Your task to perform on an android device: change keyboard looks Image 0: 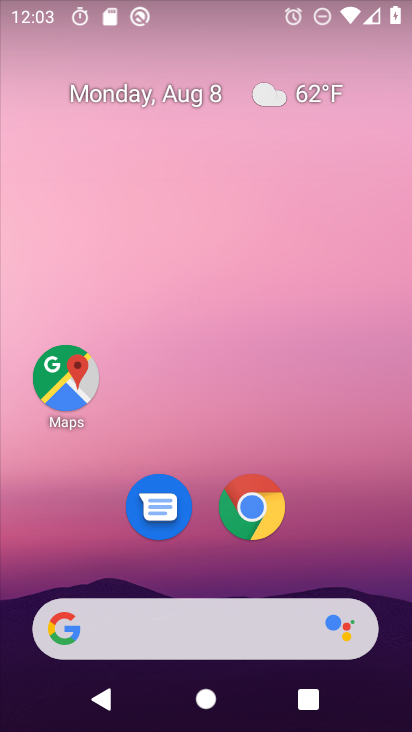
Step 0: drag from (378, 432) to (364, 17)
Your task to perform on an android device: change keyboard looks Image 1: 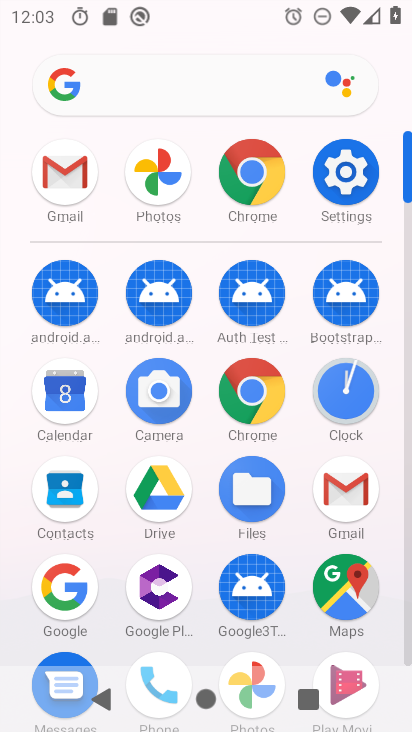
Step 1: click (360, 170)
Your task to perform on an android device: change keyboard looks Image 2: 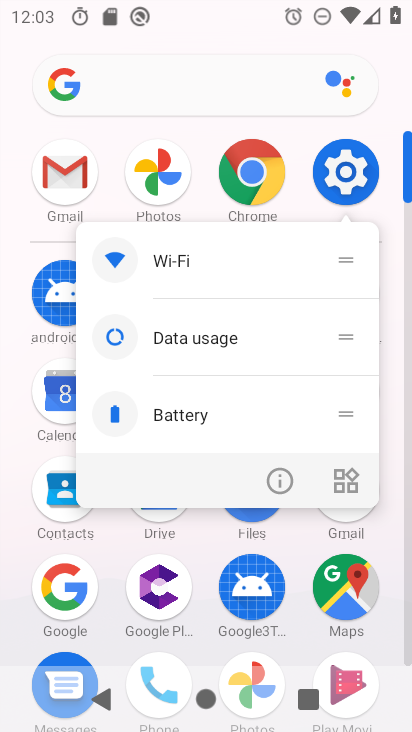
Step 2: click (346, 168)
Your task to perform on an android device: change keyboard looks Image 3: 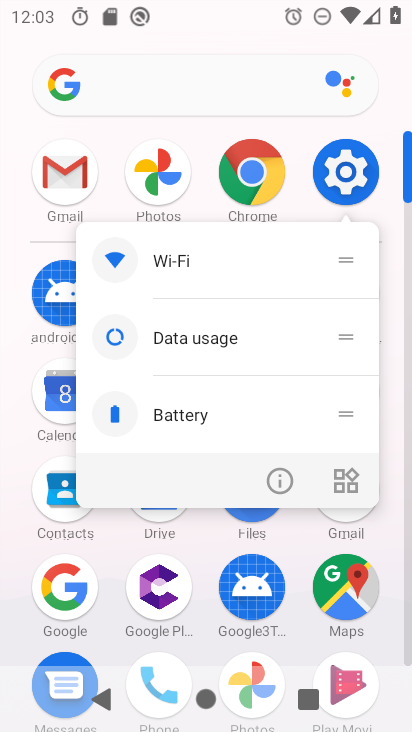
Step 3: click (345, 169)
Your task to perform on an android device: change keyboard looks Image 4: 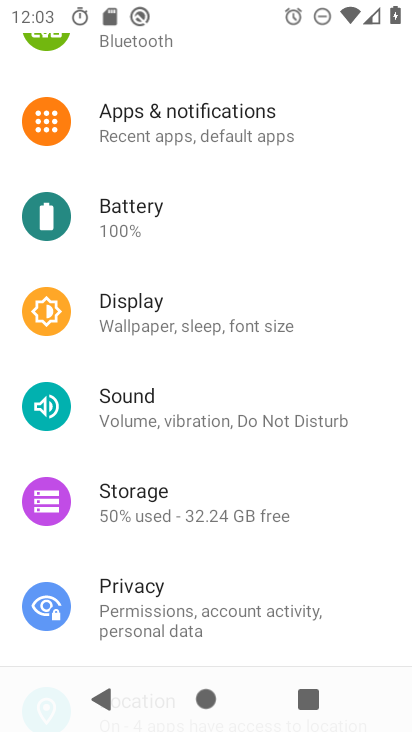
Step 4: drag from (209, 615) to (295, 120)
Your task to perform on an android device: change keyboard looks Image 5: 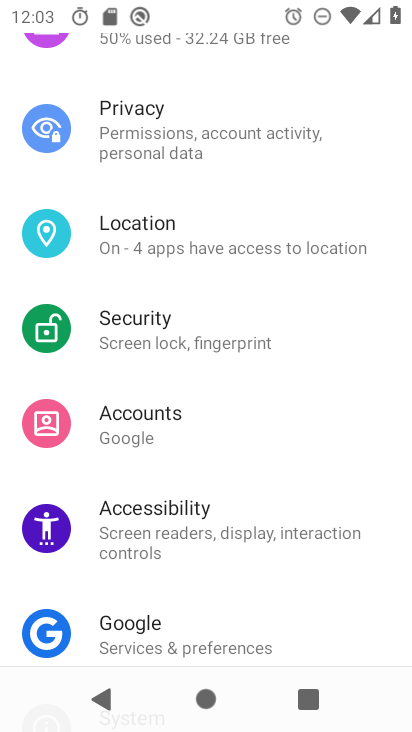
Step 5: drag from (166, 622) to (294, 237)
Your task to perform on an android device: change keyboard looks Image 6: 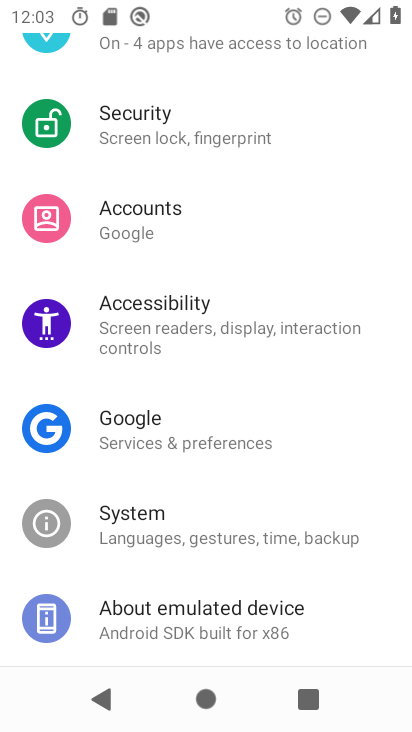
Step 6: click (122, 510)
Your task to perform on an android device: change keyboard looks Image 7: 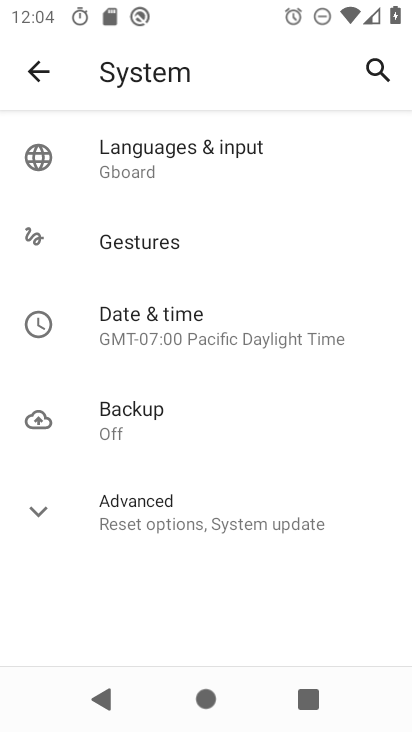
Step 7: click (182, 164)
Your task to perform on an android device: change keyboard looks Image 8: 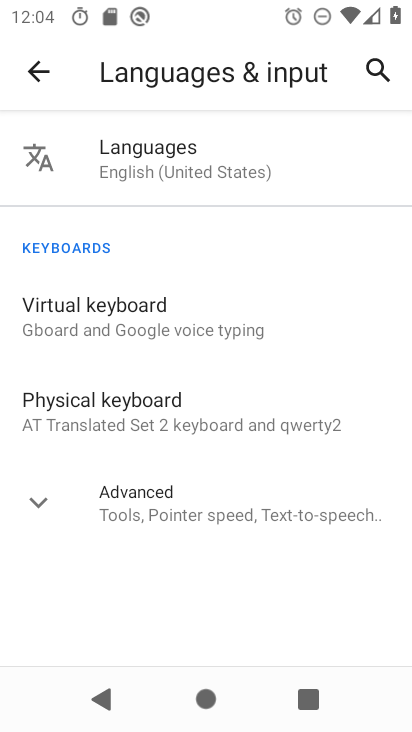
Step 8: click (132, 302)
Your task to perform on an android device: change keyboard looks Image 9: 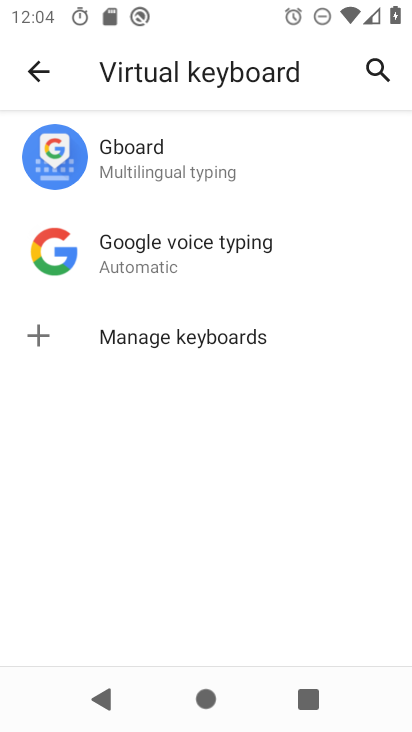
Step 9: click (134, 157)
Your task to perform on an android device: change keyboard looks Image 10: 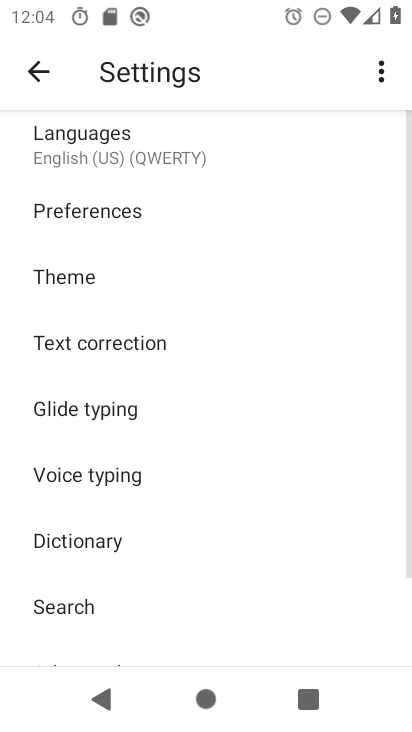
Step 10: click (79, 268)
Your task to perform on an android device: change keyboard looks Image 11: 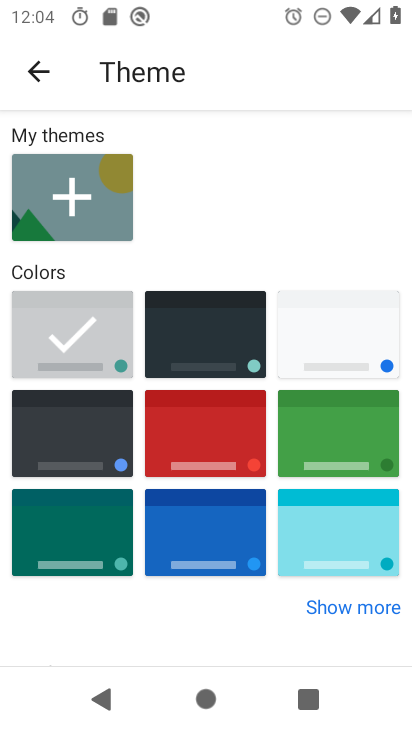
Step 11: click (391, 327)
Your task to perform on an android device: change keyboard looks Image 12: 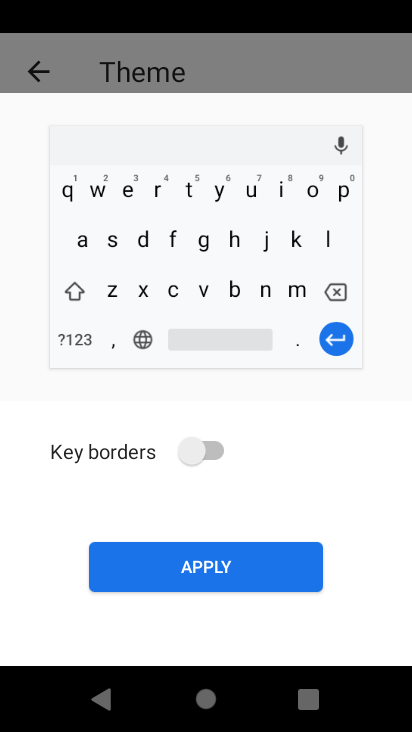
Step 12: click (249, 575)
Your task to perform on an android device: change keyboard looks Image 13: 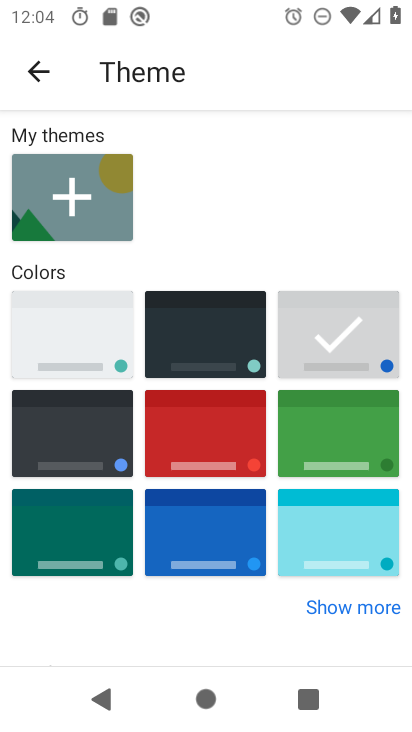
Step 13: task complete